Your task to perform on an android device: change text size in settings app Image 0: 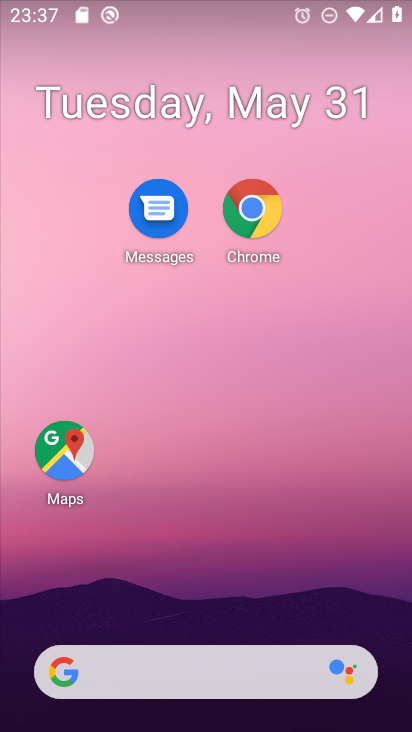
Step 0: drag from (221, 637) to (213, 105)
Your task to perform on an android device: change text size in settings app Image 1: 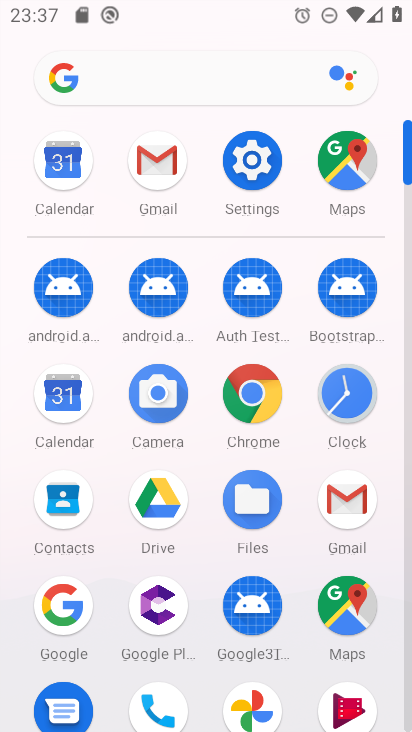
Step 1: click (248, 152)
Your task to perform on an android device: change text size in settings app Image 2: 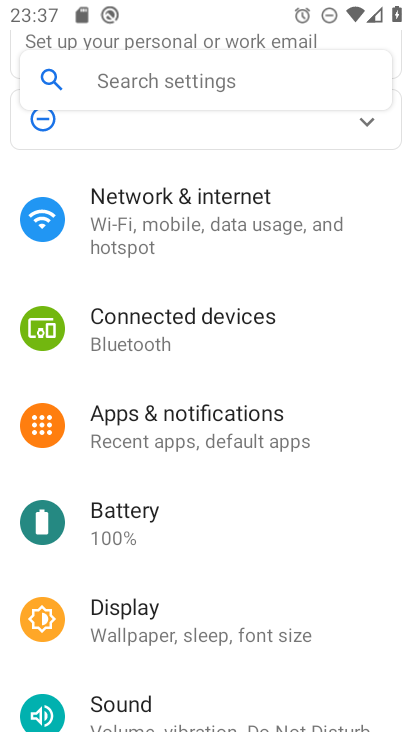
Step 2: click (193, 613)
Your task to perform on an android device: change text size in settings app Image 3: 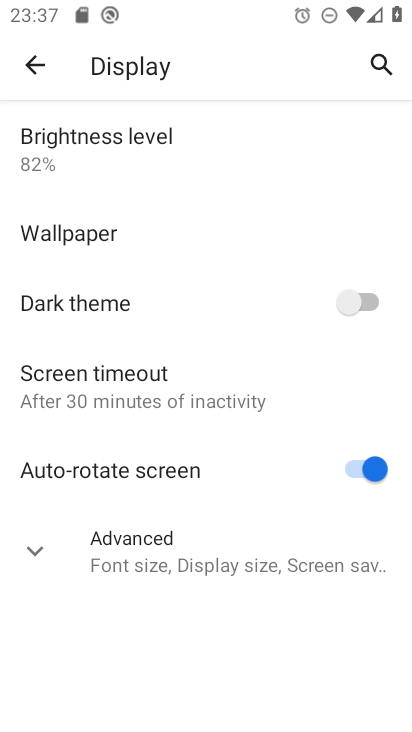
Step 3: click (37, 541)
Your task to perform on an android device: change text size in settings app Image 4: 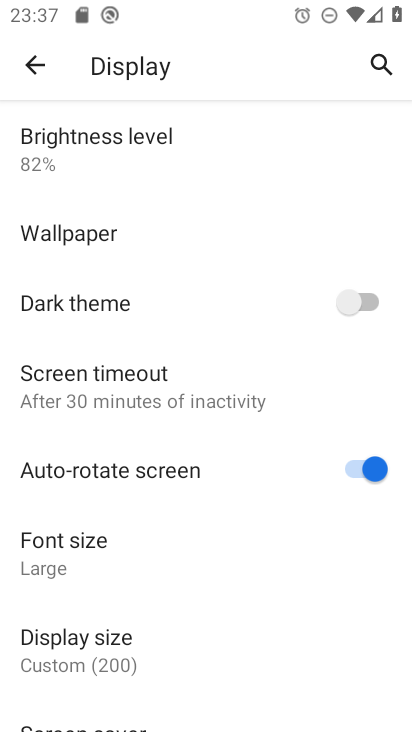
Step 4: click (123, 557)
Your task to perform on an android device: change text size in settings app Image 5: 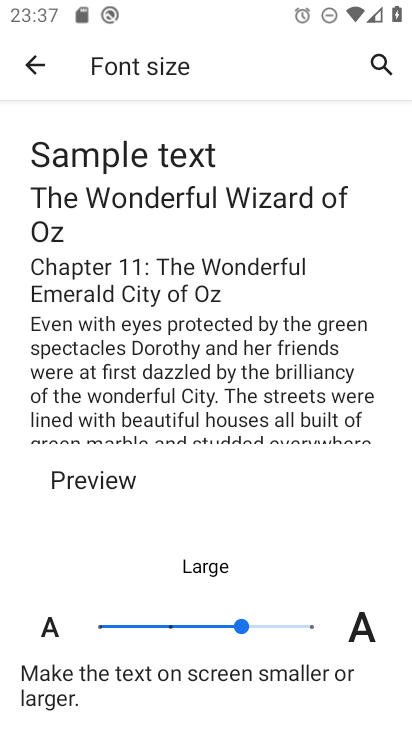
Step 5: click (102, 624)
Your task to perform on an android device: change text size in settings app Image 6: 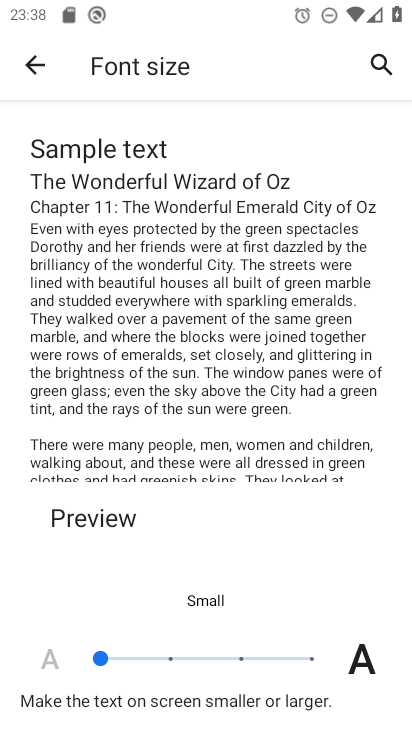
Step 6: task complete